Your task to perform on an android device: What's the weather going to be tomorrow? Image 0: 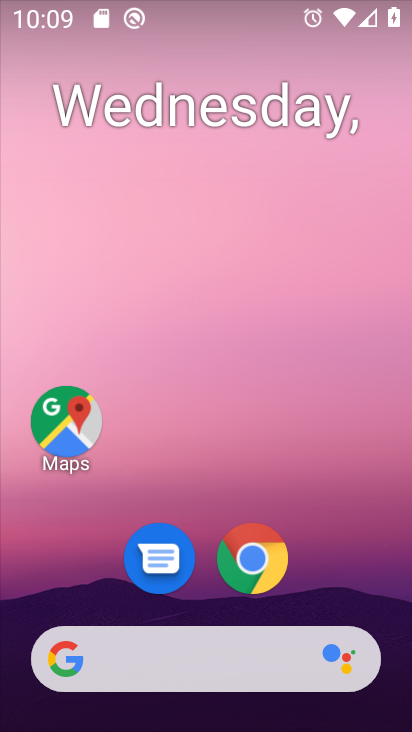
Step 0: click (254, 654)
Your task to perform on an android device: What's the weather going to be tomorrow? Image 1: 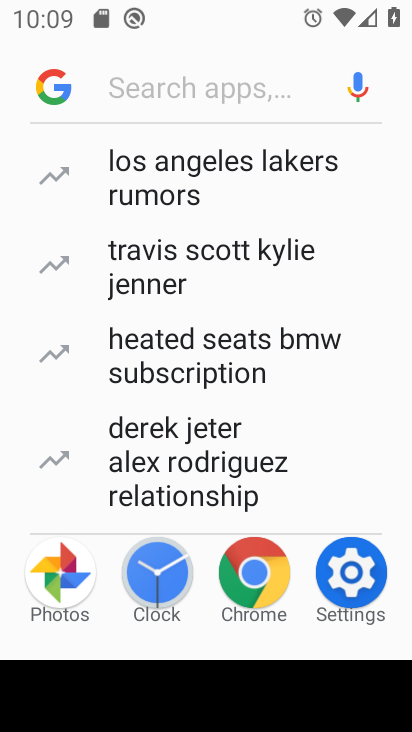
Step 1: type "weather"
Your task to perform on an android device: What's the weather going to be tomorrow? Image 2: 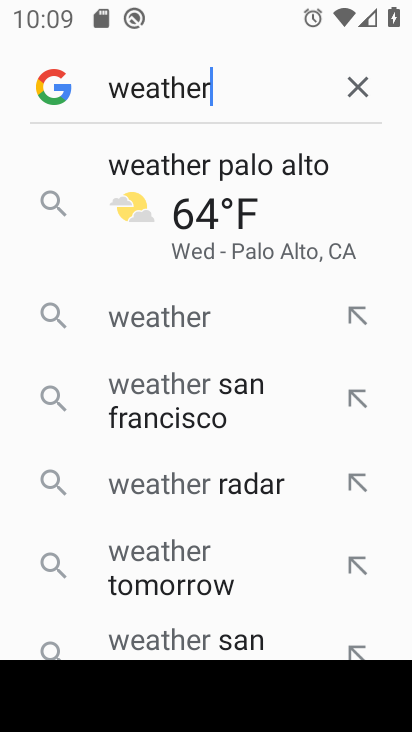
Step 2: click (305, 212)
Your task to perform on an android device: What's the weather going to be tomorrow? Image 3: 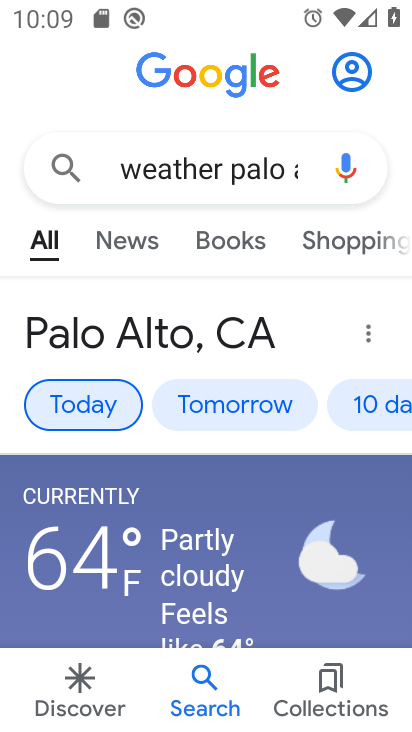
Step 3: click (267, 409)
Your task to perform on an android device: What's the weather going to be tomorrow? Image 4: 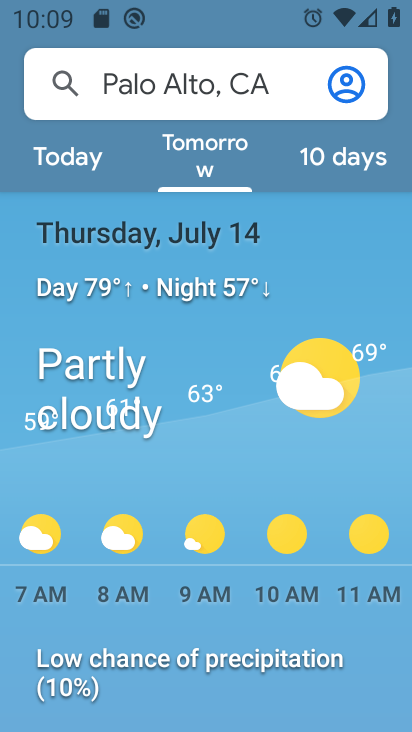
Step 4: task complete